Your task to perform on an android device: How do I get to the nearest Home Depot? Image 0: 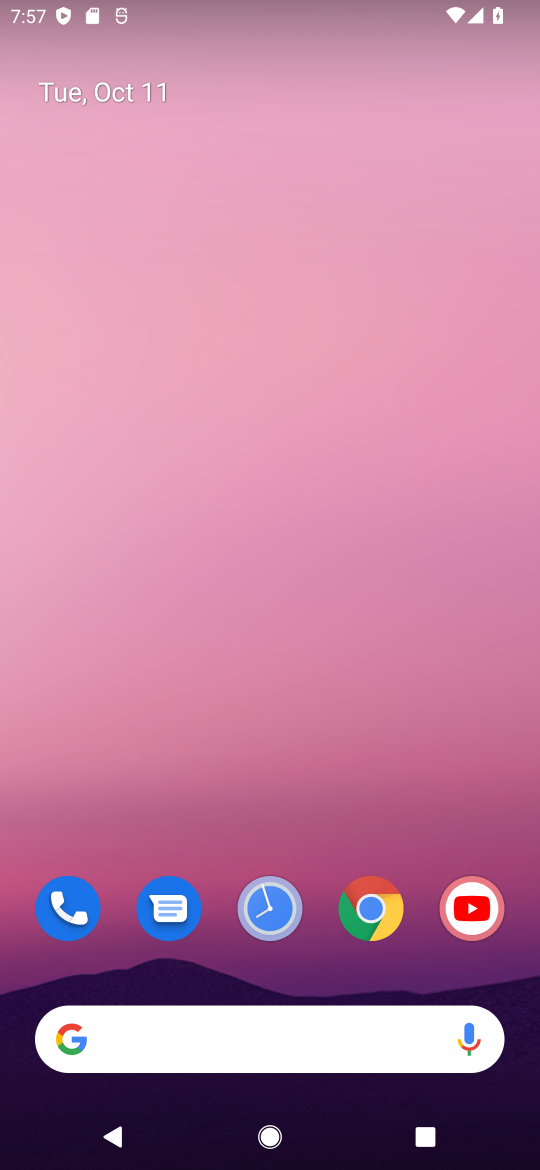
Step 0: click (298, 1039)
Your task to perform on an android device: How do I get to the nearest Home Depot? Image 1: 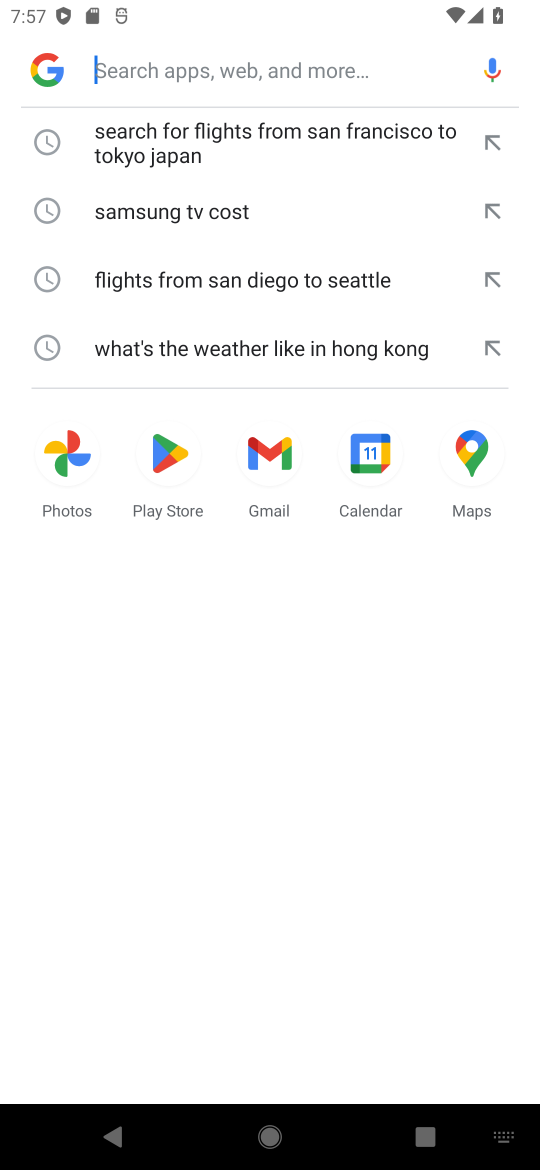
Step 1: type "How do I get to the nearest Home Depot?"
Your task to perform on an android device: How do I get to the nearest Home Depot? Image 2: 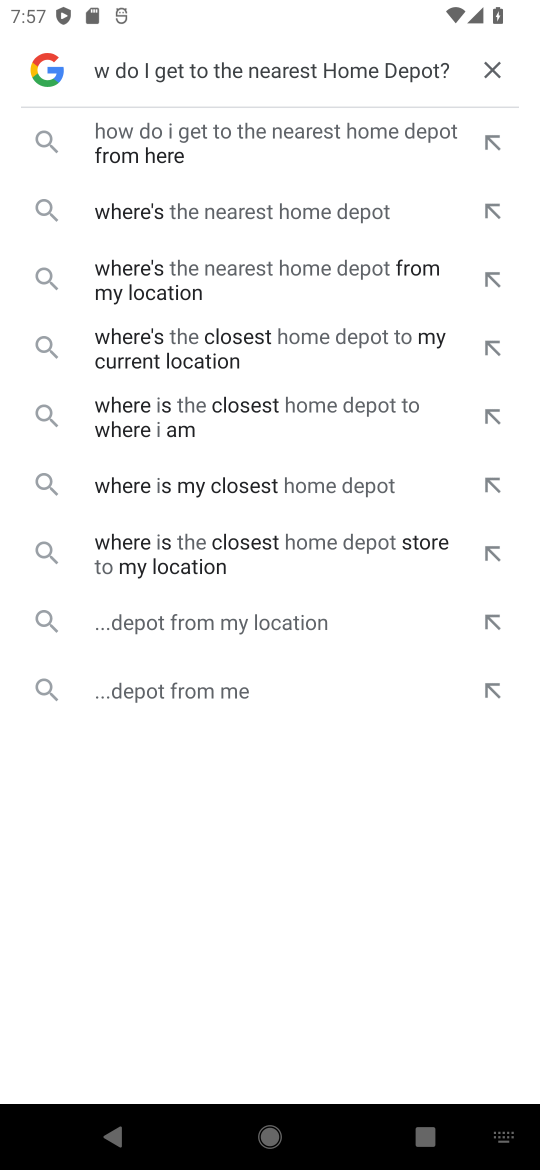
Step 2: click (252, 137)
Your task to perform on an android device: How do I get to the nearest Home Depot? Image 3: 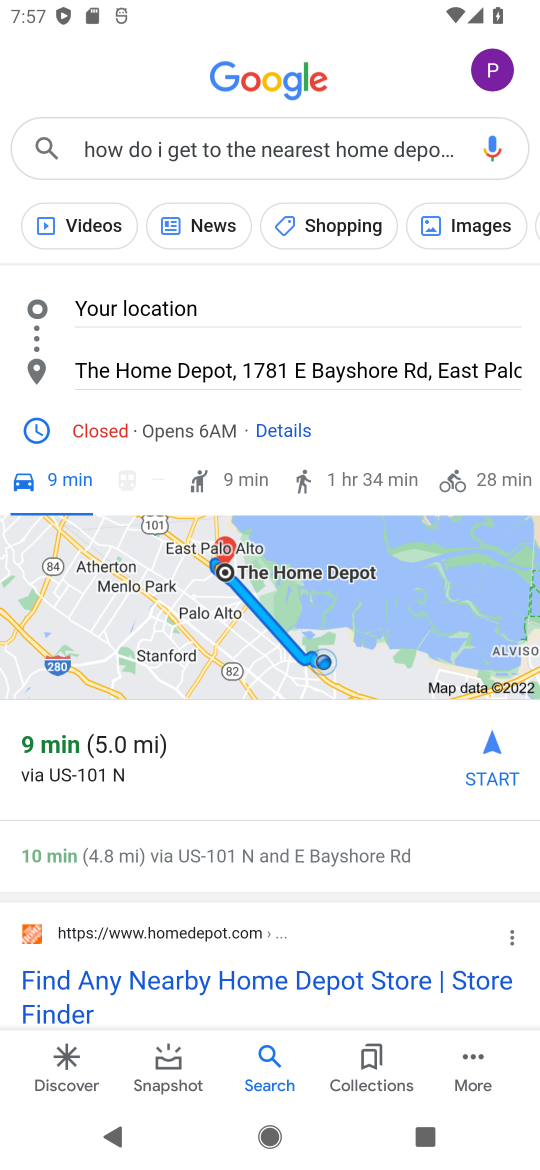
Step 3: task complete